Your task to perform on an android device: What is the news today? Image 0: 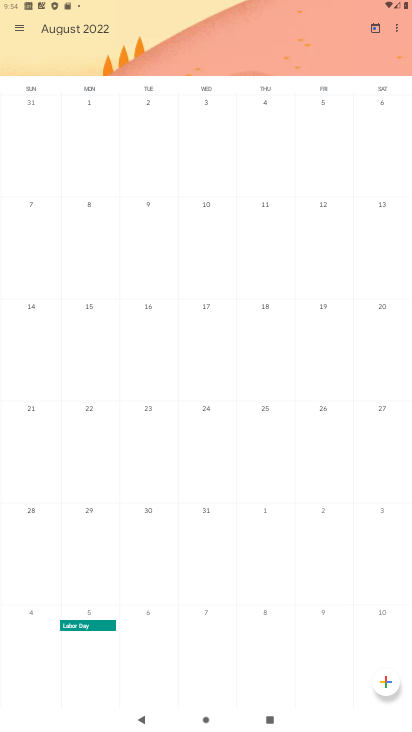
Step 0: press home button
Your task to perform on an android device: What is the news today? Image 1: 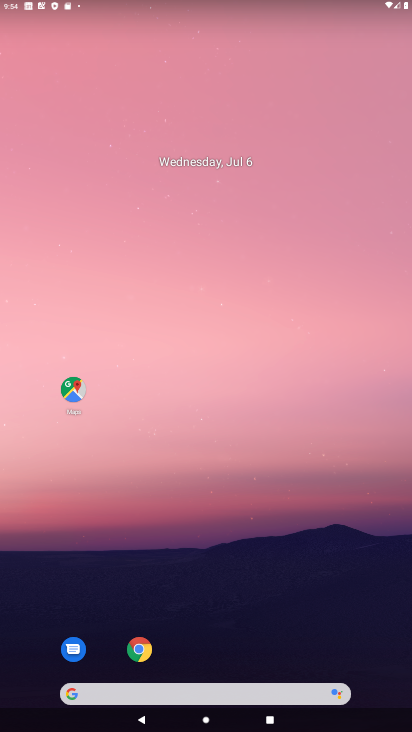
Step 1: click (139, 657)
Your task to perform on an android device: What is the news today? Image 2: 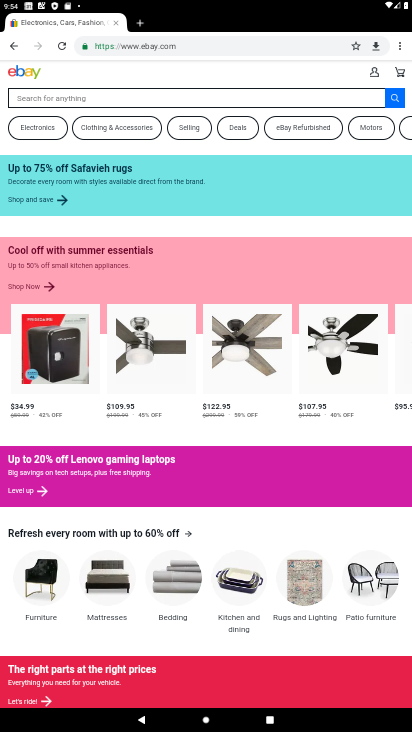
Step 2: click (154, 49)
Your task to perform on an android device: What is the news today? Image 3: 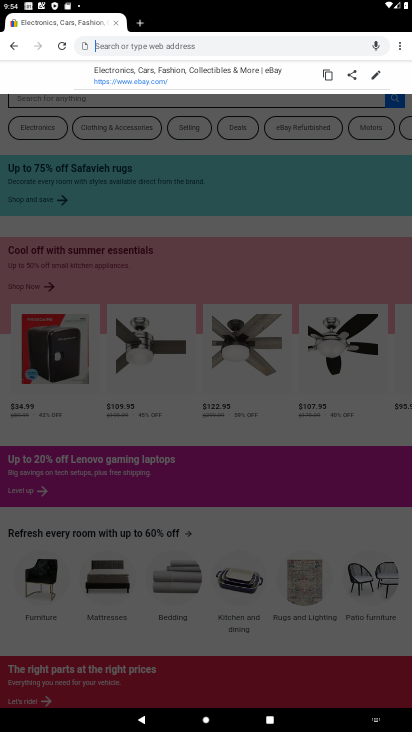
Step 3: type "news today"
Your task to perform on an android device: What is the news today? Image 4: 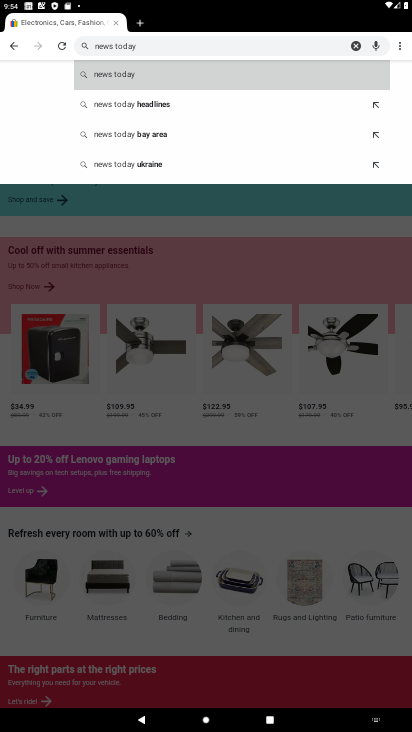
Step 4: click (114, 77)
Your task to perform on an android device: What is the news today? Image 5: 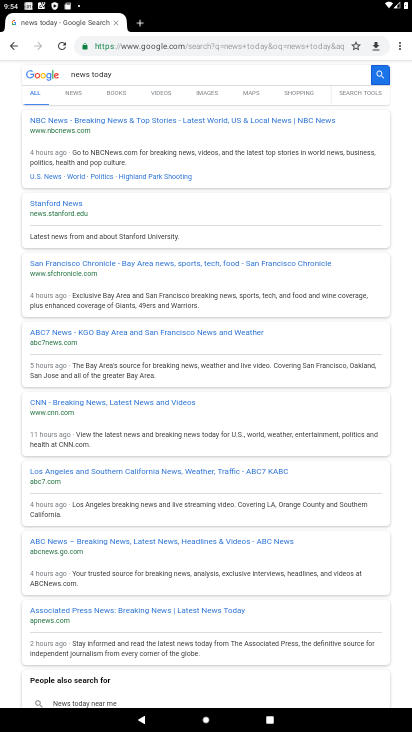
Step 5: click (74, 92)
Your task to perform on an android device: What is the news today? Image 6: 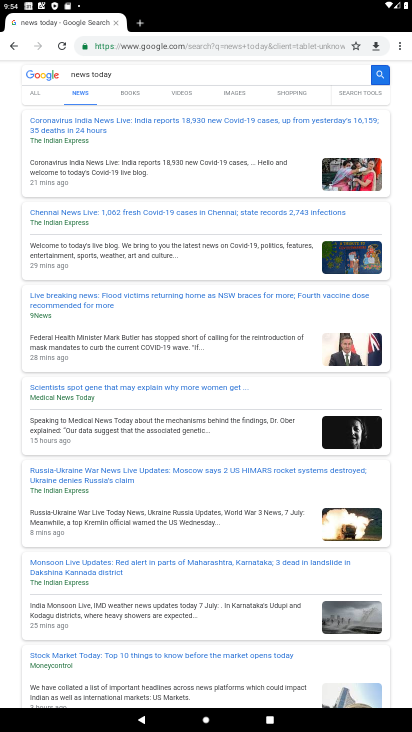
Step 6: task complete